Your task to perform on an android device: refresh tabs in the chrome app Image 0: 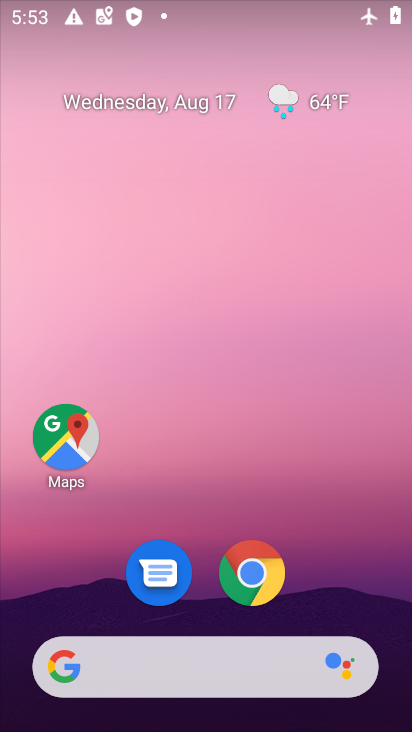
Step 0: drag from (355, 555) to (375, 145)
Your task to perform on an android device: refresh tabs in the chrome app Image 1: 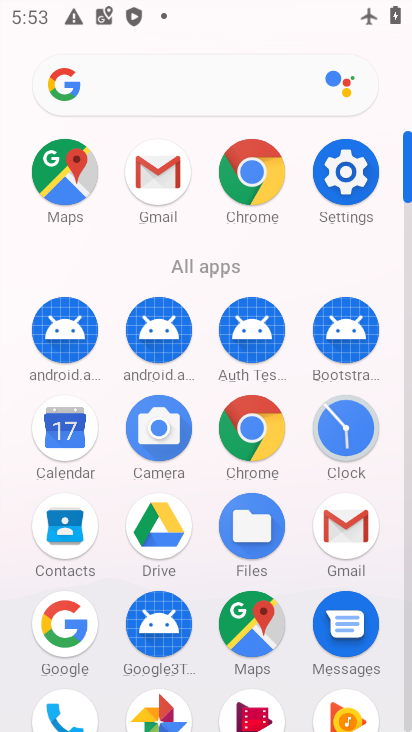
Step 1: click (203, 163)
Your task to perform on an android device: refresh tabs in the chrome app Image 2: 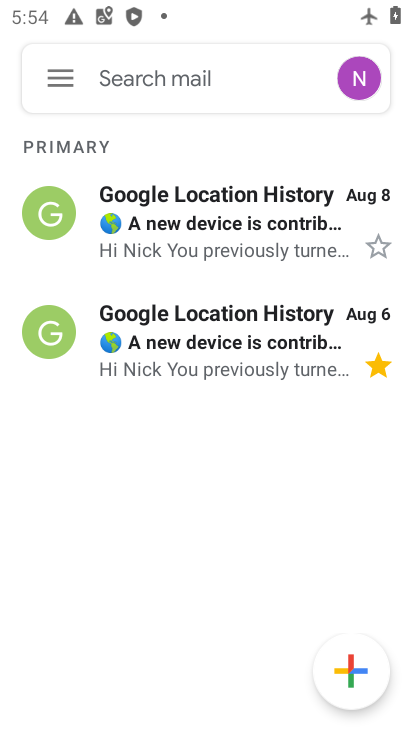
Step 2: press home button
Your task to perform on an android device: refresh tabs in the chrome app Image 3: 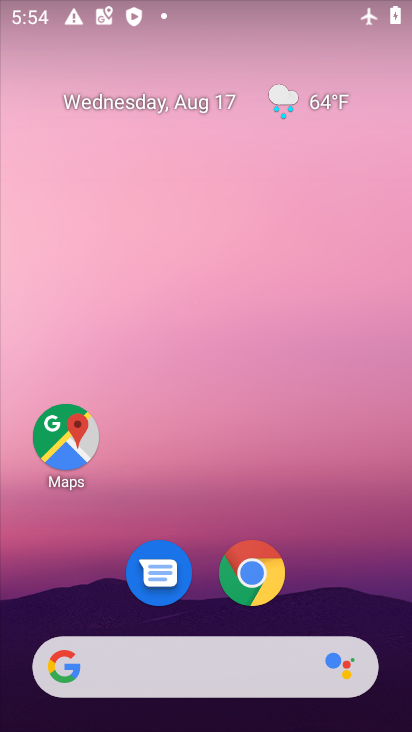
Step 3: drag from (358, 547) to (410, 384)
Your task to perform on an android device: refresh tabs in the chrome app Image 4: 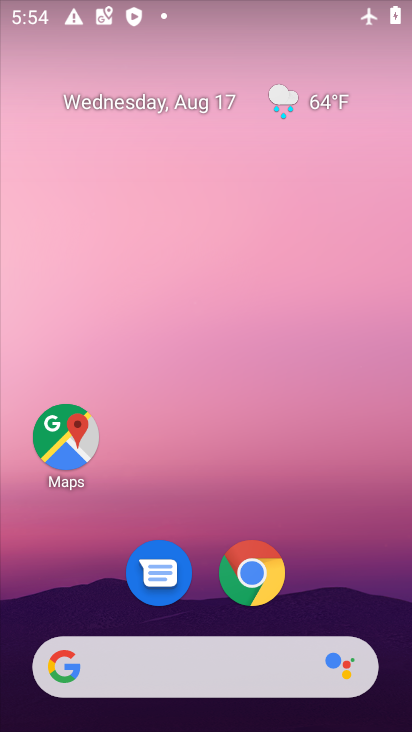
Step 4: drag from (320, 643) to (410, 121)
Your task to perform on an android device: refresh tabs in the chrome app Image 5: 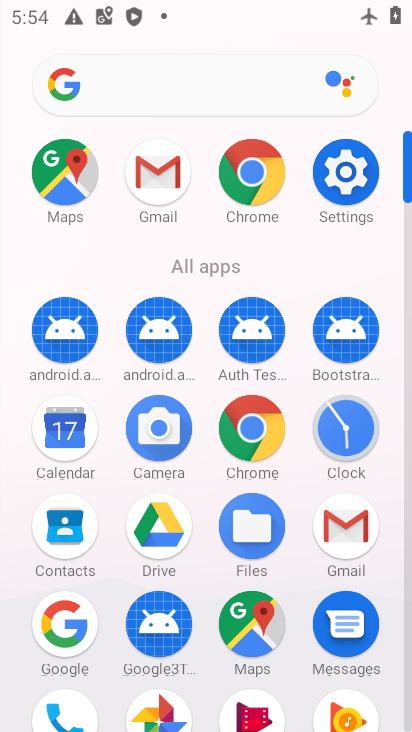
Step 5: click (270, 167)
Your task to perform on an android device: refresh tabs in the chrome app Image 6: 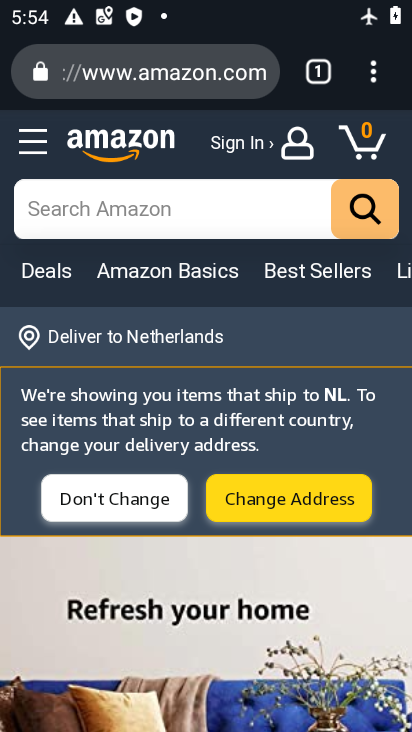
Step 6: click (380, 74)
Your task to perform on an android device: refresh tabs in the chrome app Image 7: 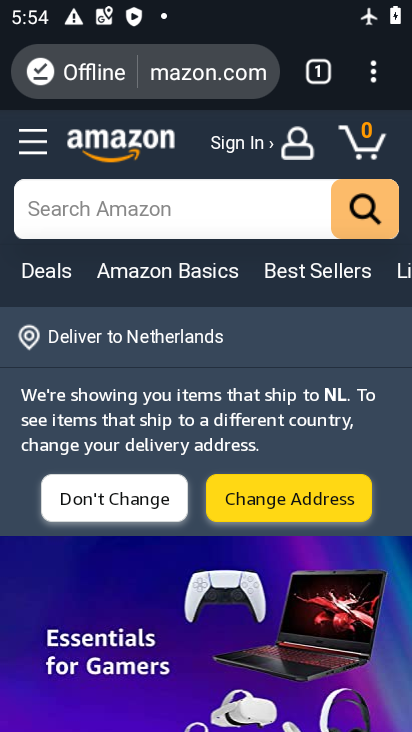
Step 7: task complete